Your task to perform on an android device: Go to display settings Image 0: 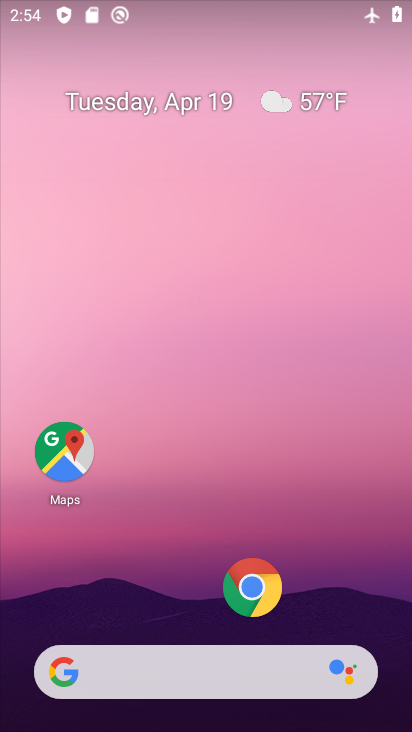
Step 0: drag from (190, 524) to (335, 1)
Your task to perform on an android device: Go to display settings Image 1: 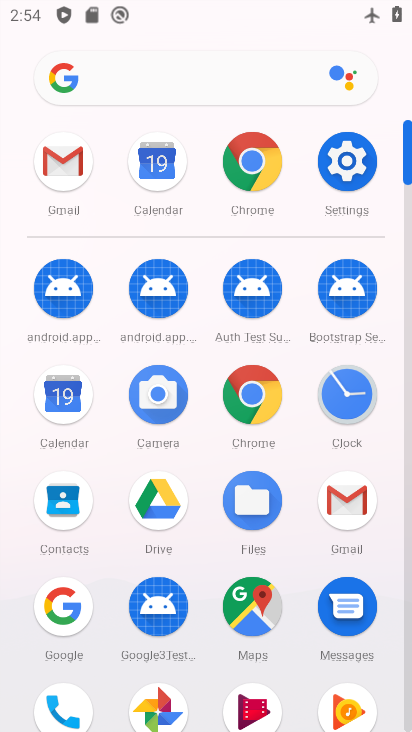
Step 1: click (347, 177)
Your task to perform on an android device: Go to display settings Image 2: 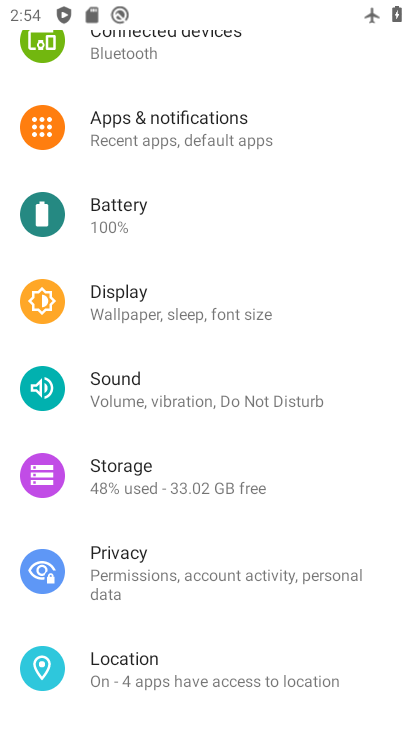
Step 2: click (169, 308)
Your task to perform on an android device: Go to display settings Image 3: 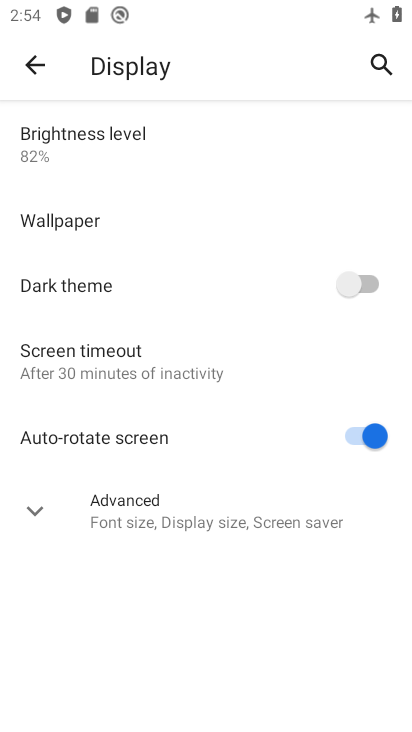
Step 3: task complete